Your task to perform on an android device: Show me productivity apps on the Play Store Image 0: 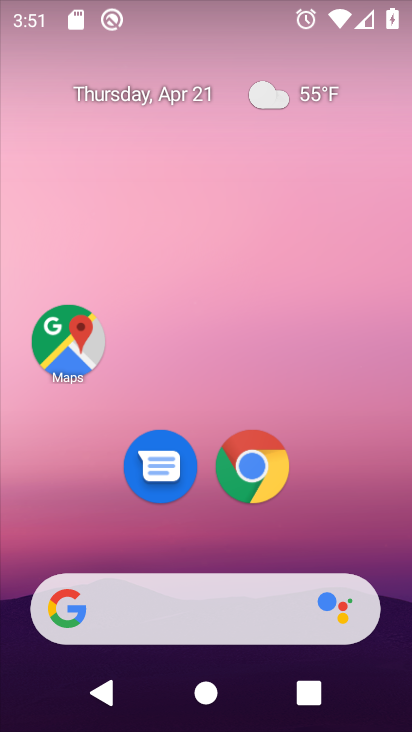
Step 0: drag from (205, 558) to (263, 38)
Your task to perform on an android device: Show me productivity apps on the Play Store Image 1: 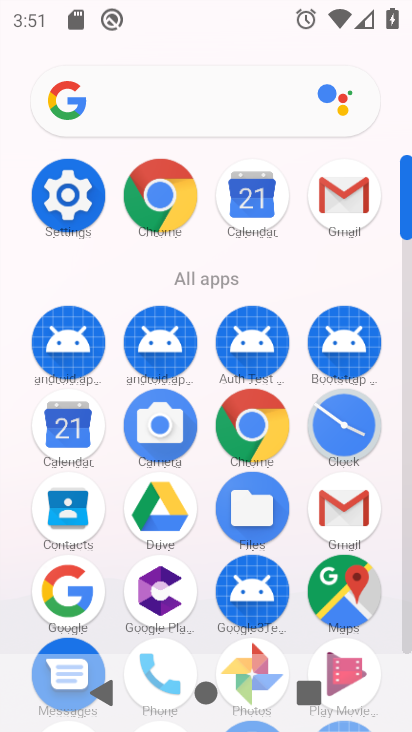
Step 1: drag from (225, 625) to (271, 165)
Your task to perform on an android device: Show me productivity apps on the Play Store Image 2: 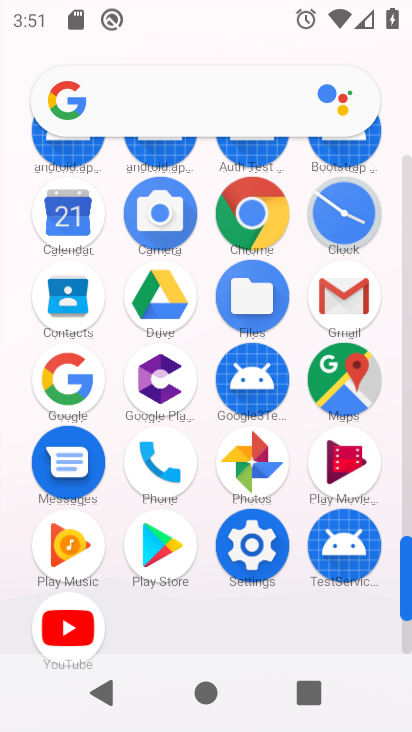
Step 2: click (164, 573)
Your task to perform on an android device: Show me productivity apps on the Play Store Image 3: 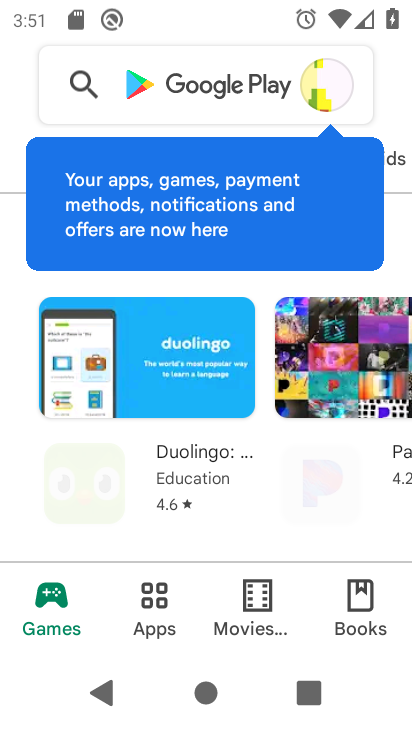
Step 3: click (160, 586)
Your task to perform on an android device: Show me productivity apps on the Play Store Image 4: 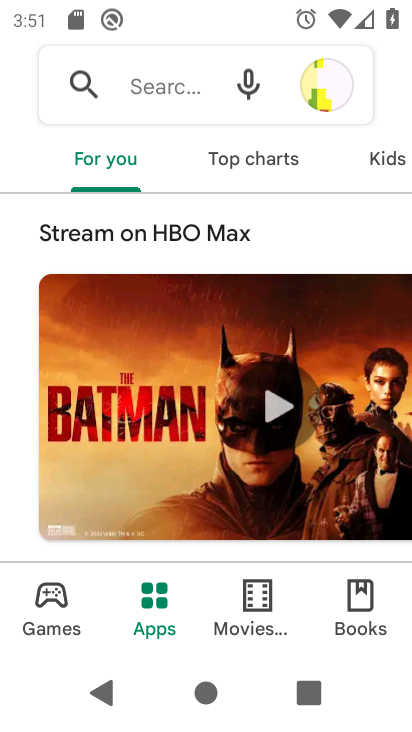
Step 4: drag from (296, 176) to (87, 176)
Your task to perform on an android device: Show me productivity apps on the Play Store Image 5: 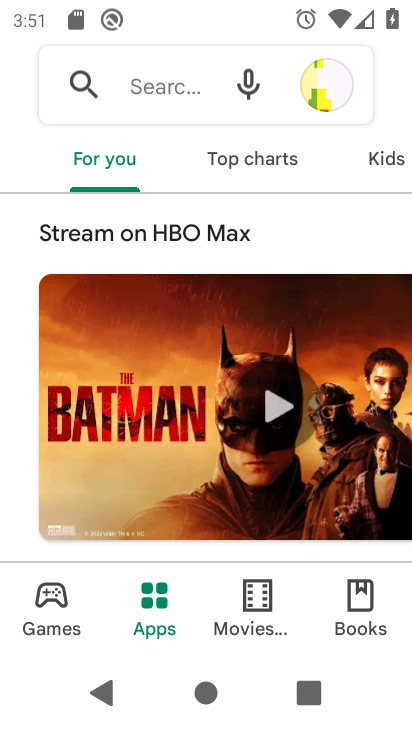
Step 5: drag from (319, 168) to (108, 157)
Your task to perform on an android device: Show me productivity apps on the Play Store Image 6: 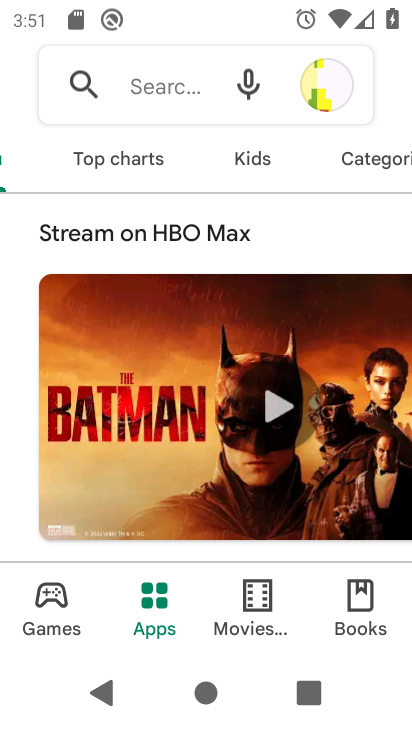
Step 6: click (346, 160)
Your task to perform on an android device: Show me productivity apps on the Play Store Image 7: 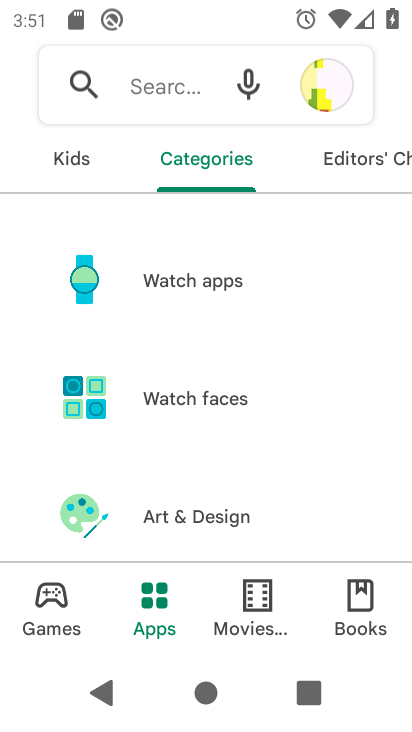
Step 7: drag from (222, 518) to (275, 59)
Your task to perform on an android device: Show me productivity apps on the Play Store Image 8: 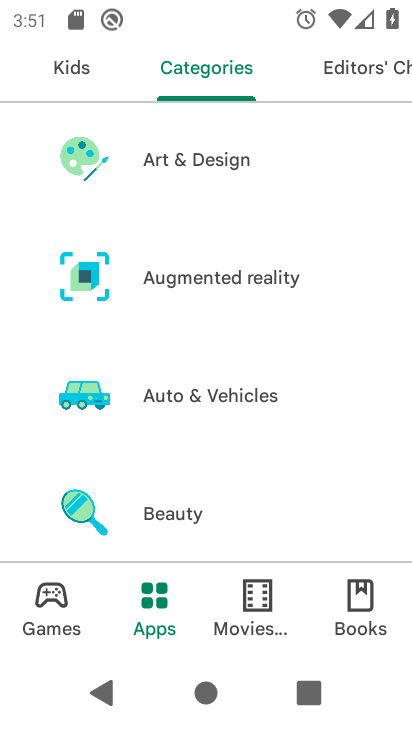
Step 8: drag from (237, 469) to (295, 1)
Your task to perform on an android device: Show me productivity apps on the Play Store Image 9: 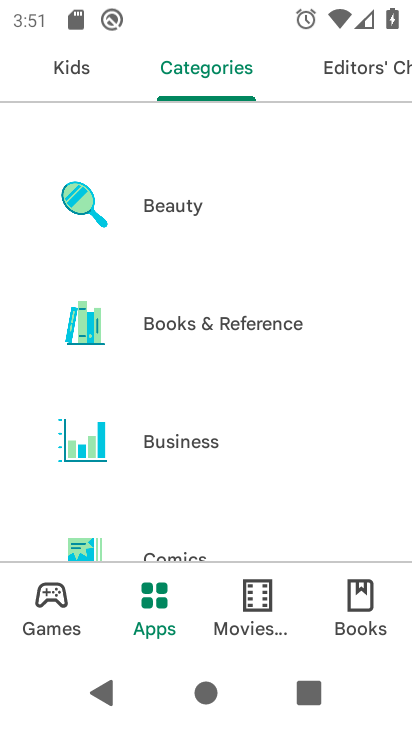
Step 9: drag from (208, 447) to (214, 0)
Your task to perform on an android device: Show me productivity apps on the Play Store Image 10: 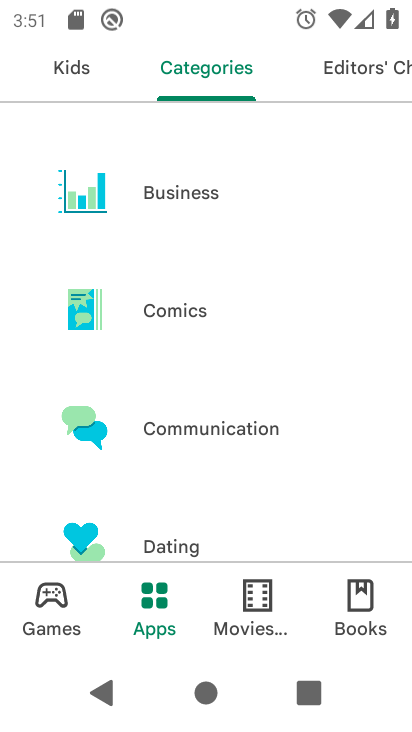
Step 10: drag from (194, 529) to (222, 30)
Your task to perform on an android device: Show me productivity apps on the Play Store Image 11: 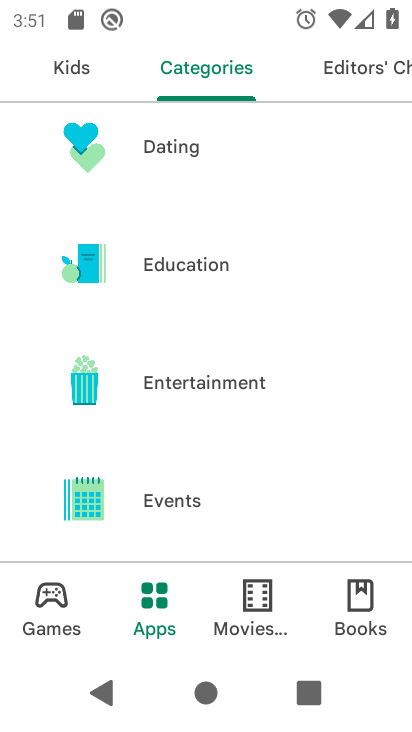
Step 11: drag from (206, 480) to (225, 34)
Your task to perform on an android device: Show me productivity apps on the Play Store Image 12: 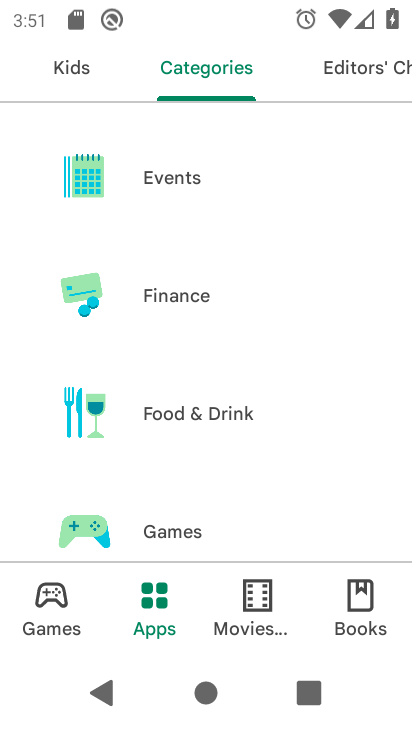
Step 12: drag from (185, 482) to (207, 38)
Your task to perform on an android device: Show me productivity apps on the Play Store Image 13: 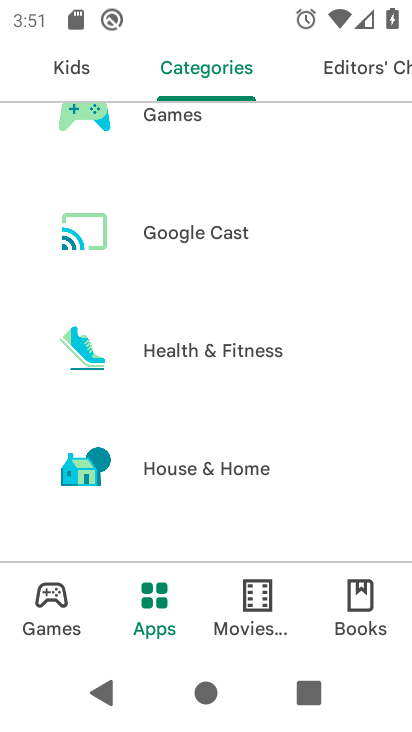
Step 13: drag from (215, 482) to (261, 32)
Your task to perform on an android device: Show me productivity apps on the Play Store Image 14: 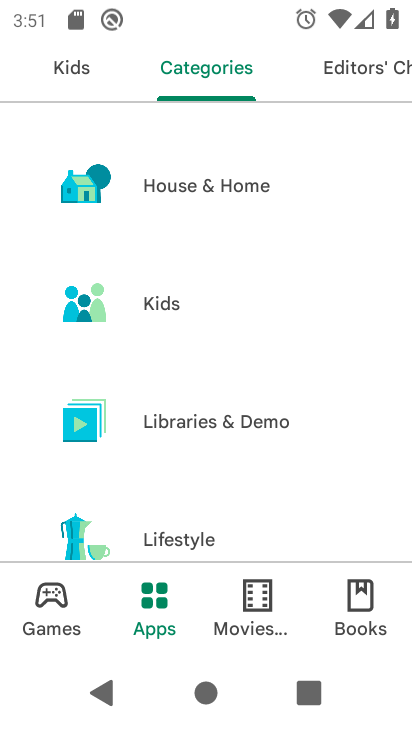
Step 14: drag from (231, 502) to (243, 68)
Your task to perform on an android device: Show me productivity apps on the Play Store Image 15: 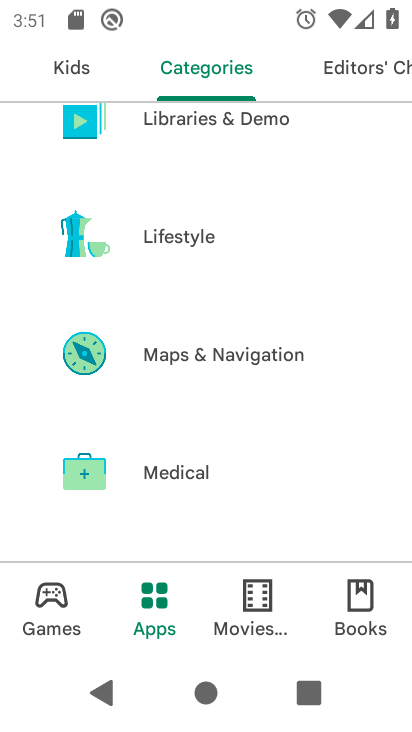
Step 15: drag from (188, 486) to (216, 37)
Your task to perform on an android device: Show me productivity apps on the Play Store Image 16: 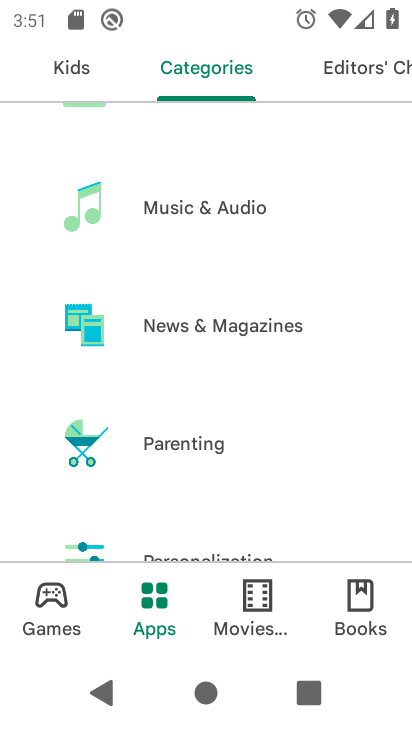
Step 16: drag from (210, 490) to (225, 103)
Your task to perform on an android device: Show me productivity apps on the Play Store Image 17: 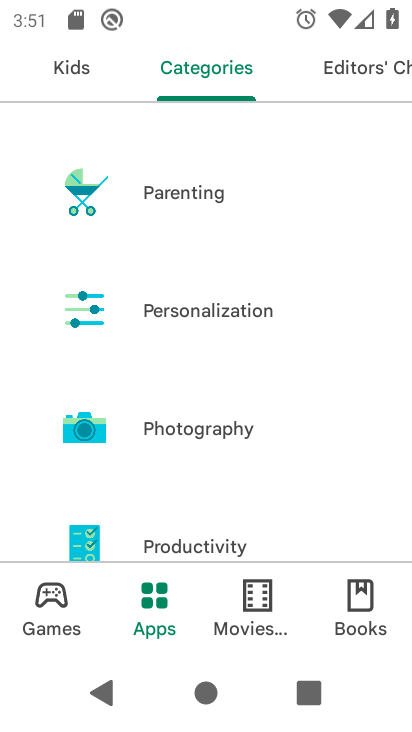
Step 17: click (182, 534)
Your task to perform on an android device: Show me productivity apps on the Play Store Image 18: 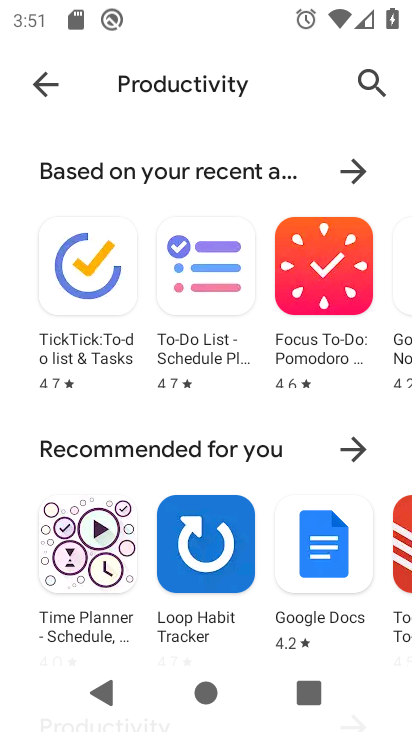
Step 18: task complete